Your task to perform on an android device: change notification settings in the gmail app Image 0: 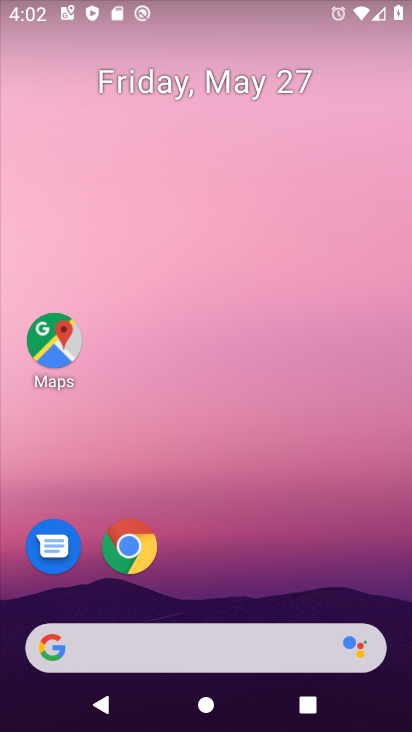
Step 0: press home button
Your task to perform on an android device: change notification settings in the gmail app Image 1: 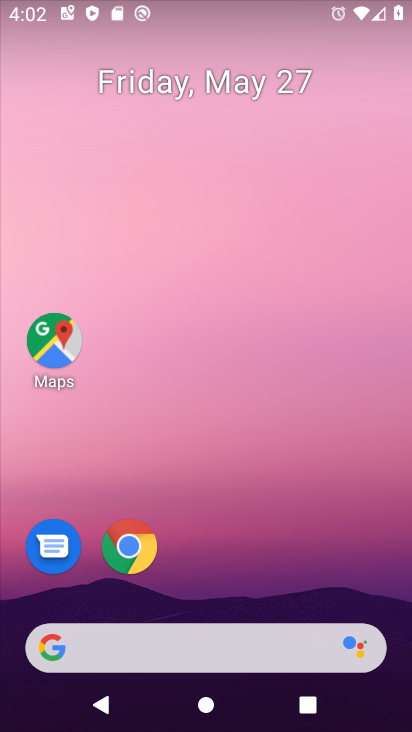
Step 1: press home button
Your task to perform on an android device: change notification settings in the gmail app Image 2: 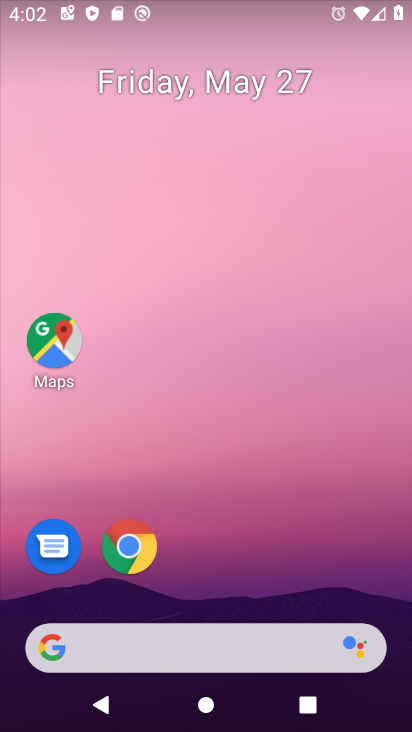
Step 2: drag from (214, 600) to (222, 118)
Your task to perform on an android device: change notification settings in the gmail app Image 3: 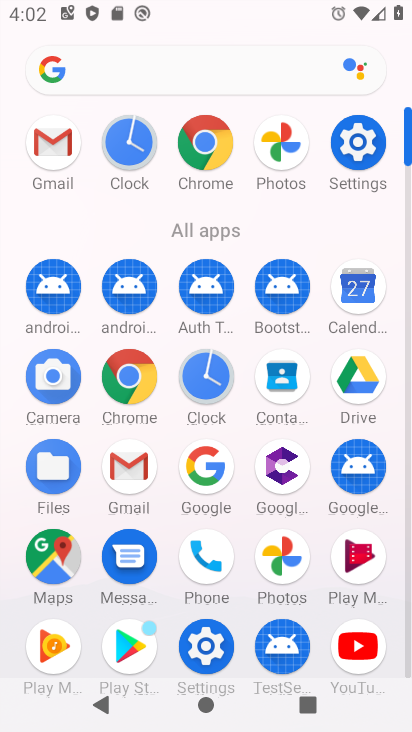
Step 3: click (124, 457)
Your task to perform on an android device: change notification settings in the gmail app Image 4: 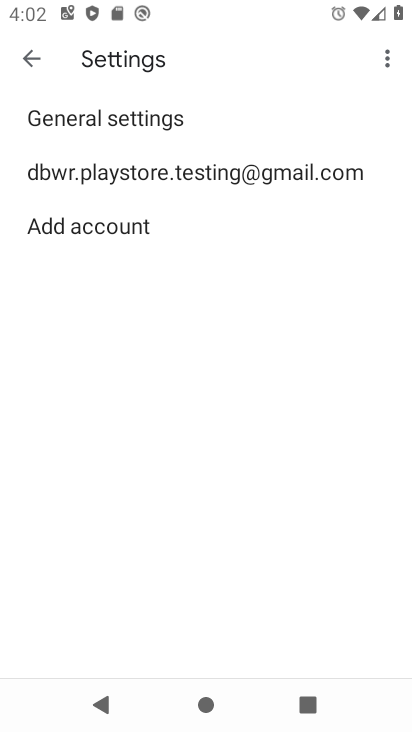
Step 4: click (189, 118)
Your task to perform on an android device: change notification settings in the gmail app Image 5: 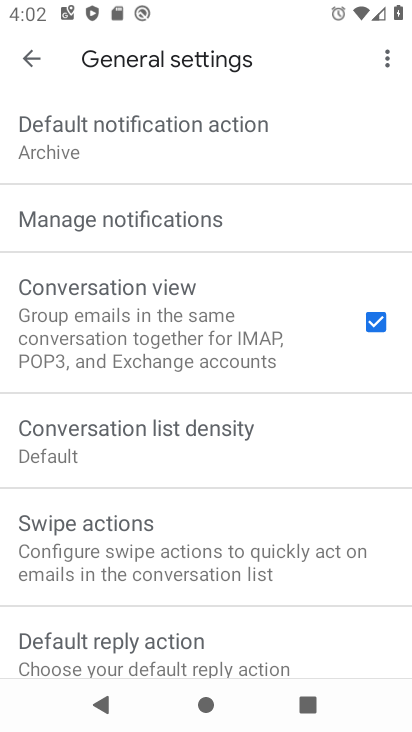
Step 5: click (240, 218)
Your task to perform on an android device: change notification settings in the gmail app Image 6: 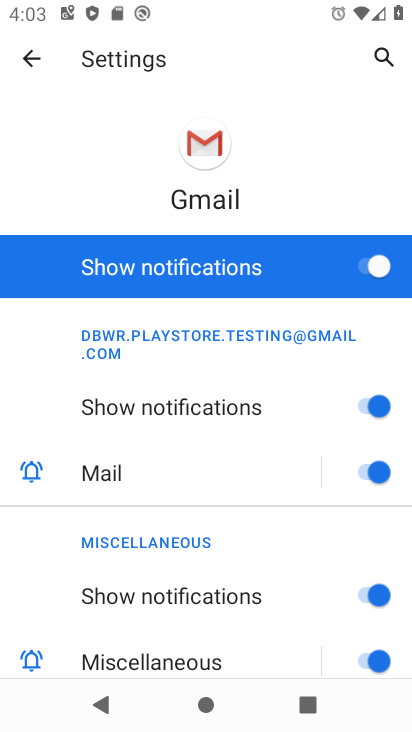
Step 6: click (367, 261)
Your task to perform on an android device: change notification settings in the gmail app Image 7: 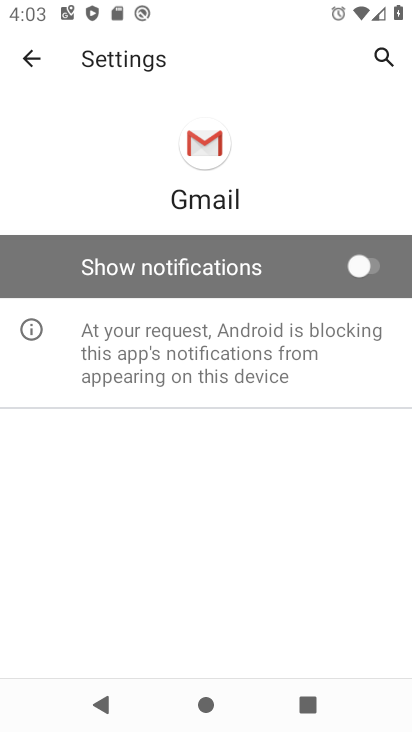
Step 7: task complete